Your task to perform on an android device: Open settings Image 0: 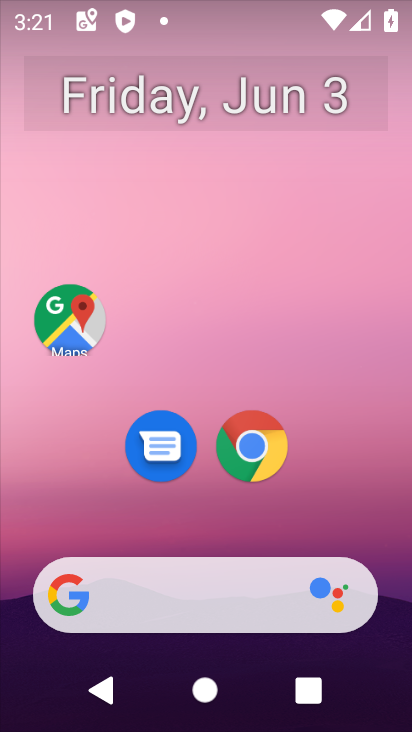
Step 0: drag from (373, 470) to (301, 69)
Your task to perform on an android device: Open settings Image 1: 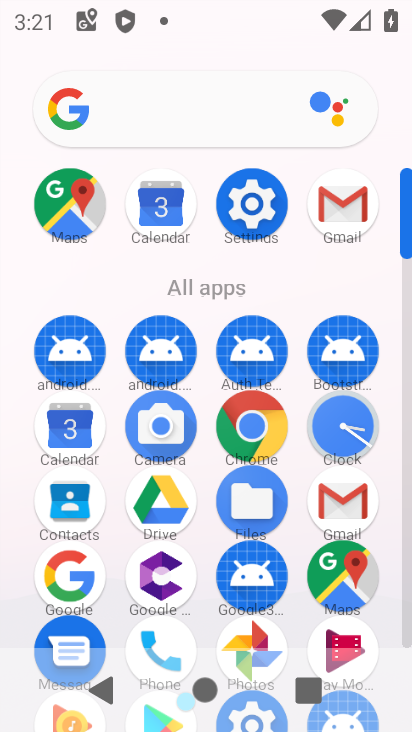
Step 1: click (253, 194)
Your task to perform on an android device: Open settings Image 2: 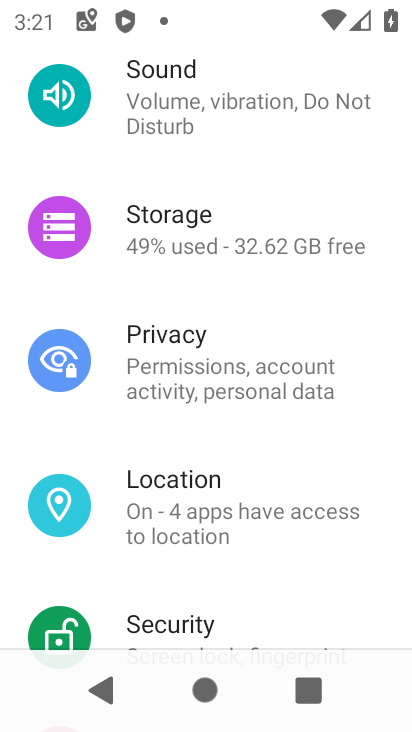
Step 2: task complete